Your task to perform on an android device: Open Chrome and go to settings Image 0: 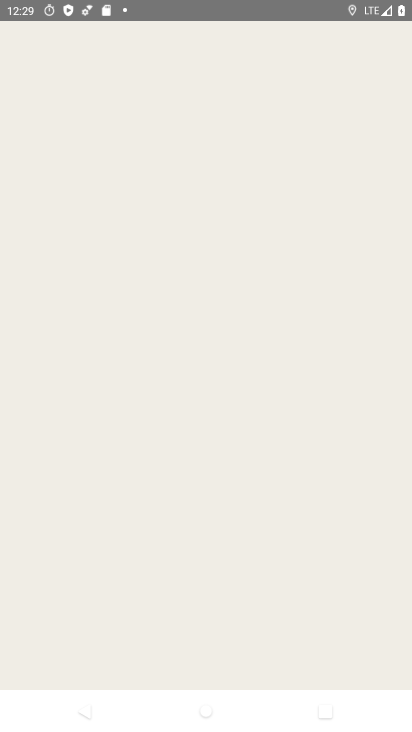
Step 0: press home button
Your task to perform on an android device: Open Chrome and go to settings Image 1: 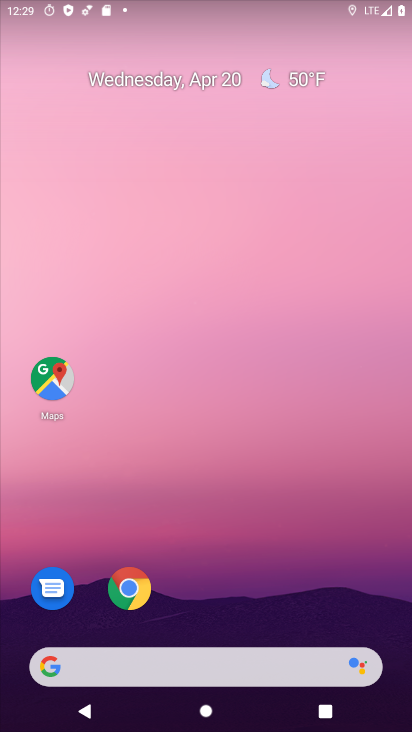
Step 1: drag from (195, 641) to (144, 27)
Your task to perform on an android device: Open Chrome and go to settings Image 2: 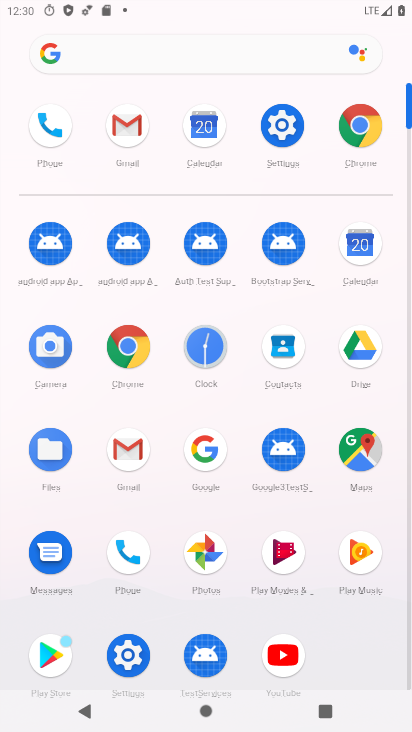
Step 2: click (355, 133)
Your task to perform on an android device: Open Chrome and go to settings Image 3: 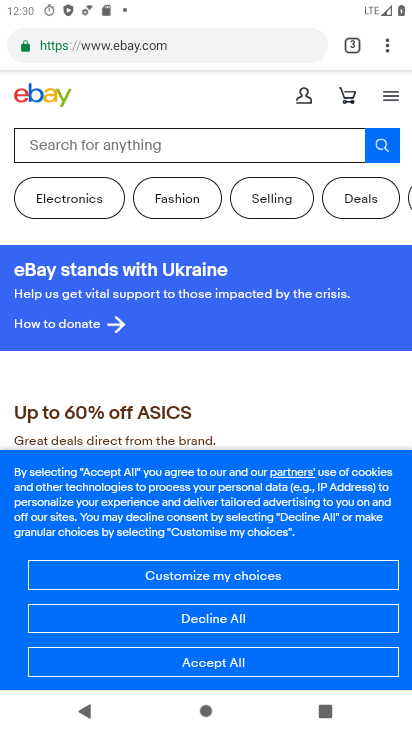
Step 3: task complete